Your task to perform on an android device: allow cookies in the chrome app Image 0: 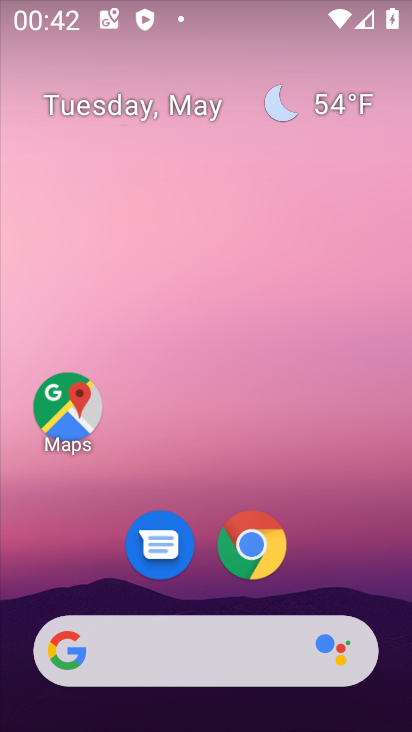
Step 0: click (266, 544)
Your task to perform on an android device: allow cookies in the chrome app Image 1: 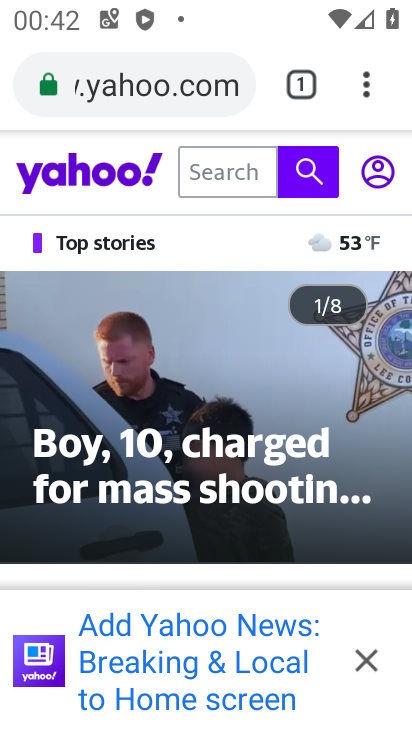
Step 1: click (371, 105)
Your task to perform on an android device: allow cookies in the chrome app Image 2: 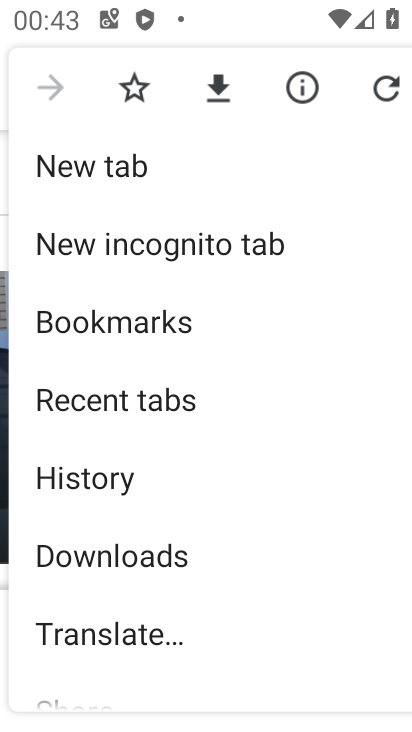
Step 2: drag from (266, 573) to (267, 285)
Your task to perform on an android device: allow cookies in the chrome app Image 3: 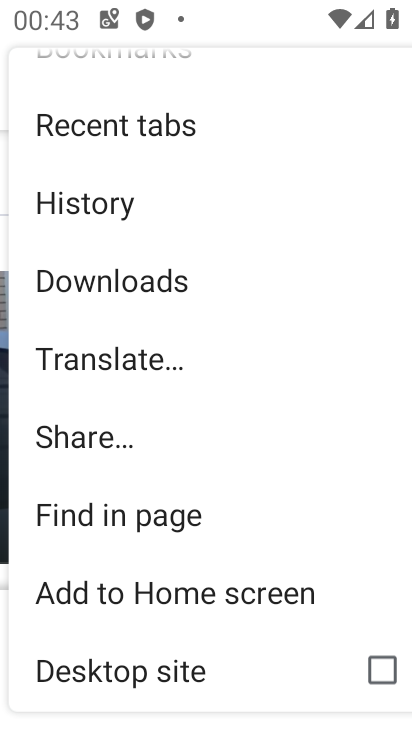
Step 3: drag from (184, 637) to (178, 290)
Your task to perform on an android device: allow cookies in the chrome app Image 4: 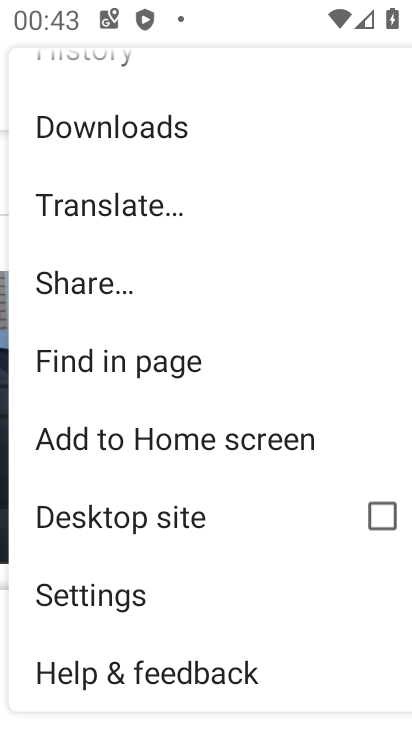
Step 4: click (122, 581)
Your task to perform on an android device: allow cookies in the chrome app Image 5: 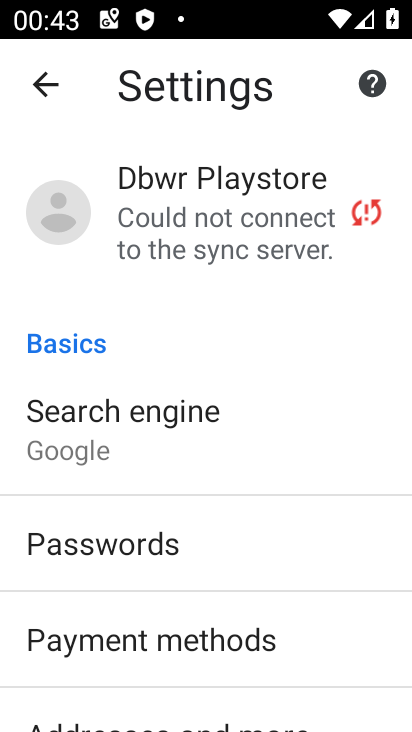
Step 5: drag from (249, 615) to (263, 343)
Your task to perform on an android device: allow cookies in the chrome app Image 6: 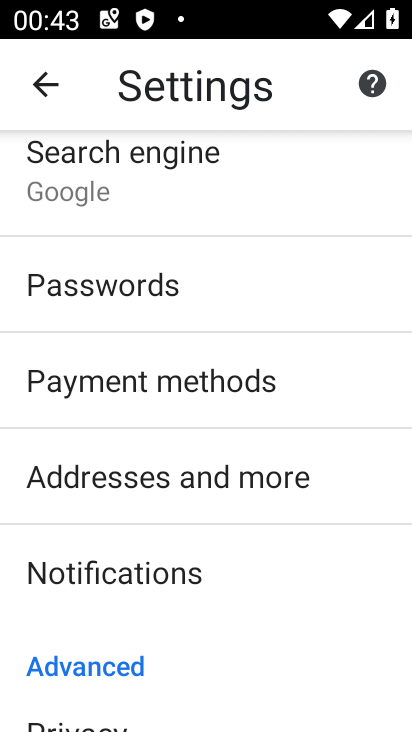
Step 6: drag from (224, 620) to (254, 308)
Your task to perform on an android device: allow cookies in the chrome app Image 7: 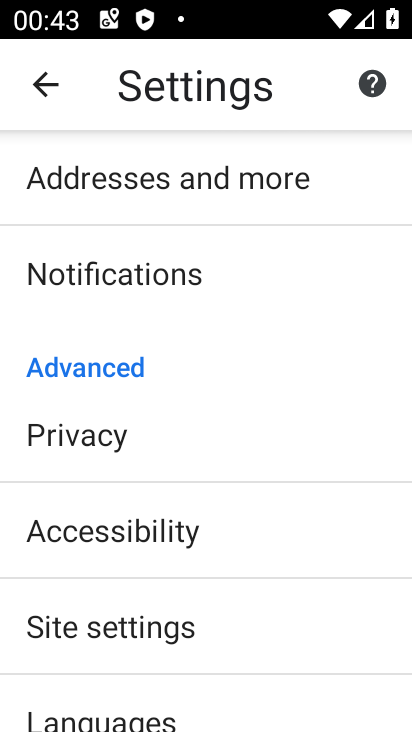
Step 7: click (216, 625)
Your task to perform on an android device: allow cookies in the chrome app Image 8: 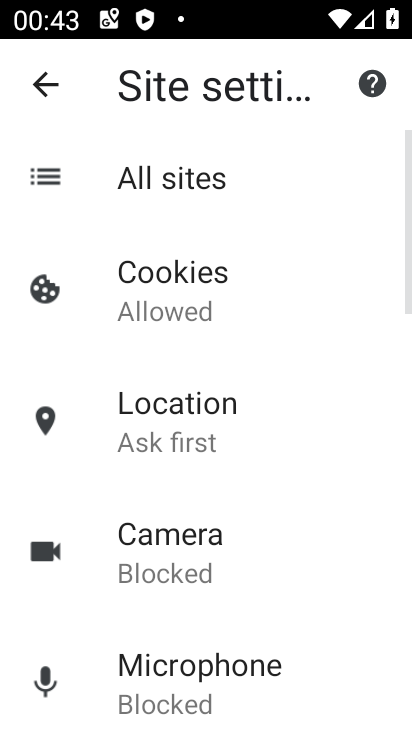
Step 8: click (215, 266)
Your task to perform on an android device: allow cookies in the chrome app Image 9: 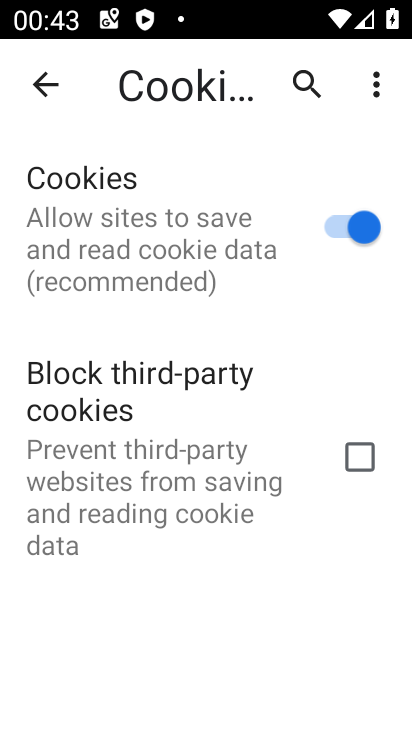
Step 9: task complete